Your task to perform on an android device: Go to Reddit.com Image 0: 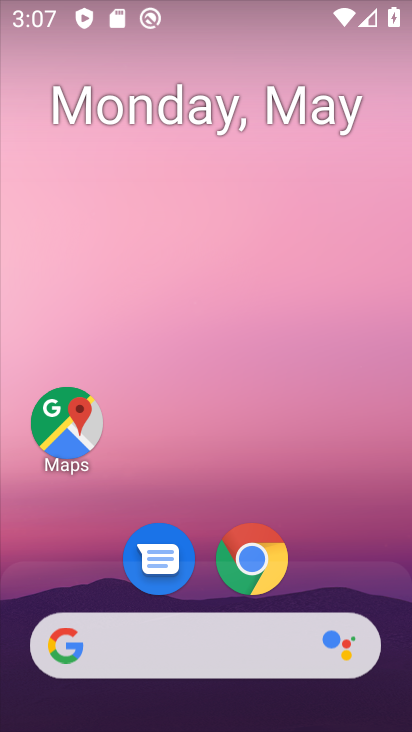
Step 0: drag from (292, 505) to (223, 9)
Your task to perform on an android device: Go to Reddit.com Image 1: 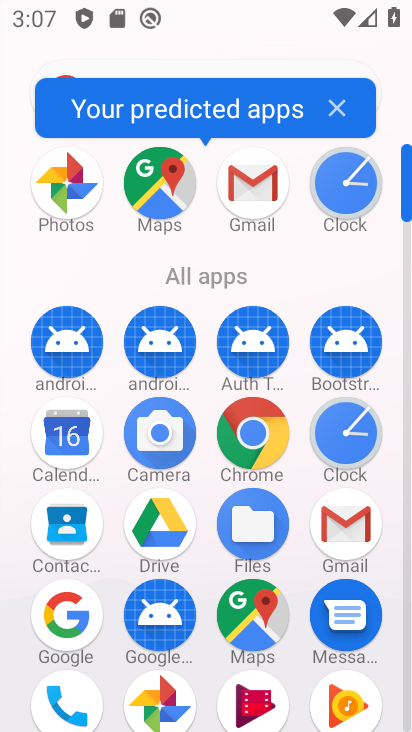
Step 1: click (255, 427)
Your task to perform on an android device: Go to Reddit.com Image 2: 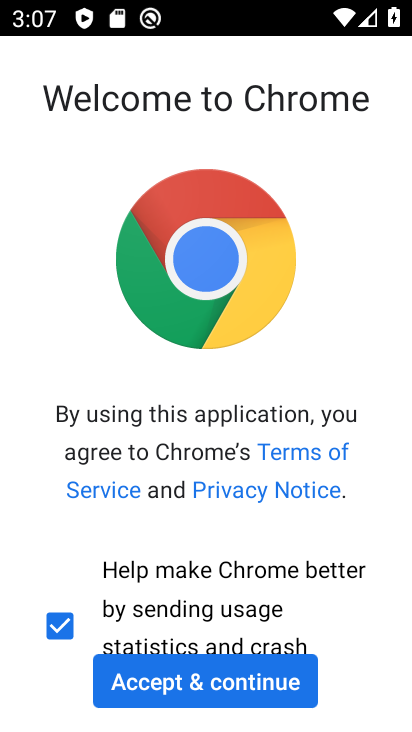
Step 2: click (204, 662)
Your task to perform on an android device: Go to Reddit.com Image 3: 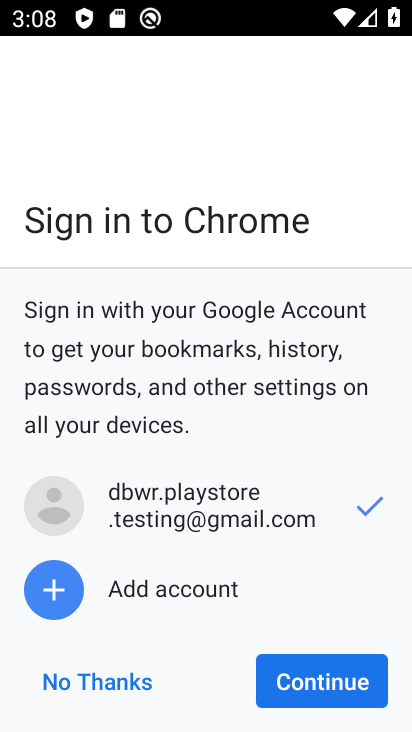
Step 3: click (303, 670)
Your task to perform on an android device: Go to Reddit.com Image 4: 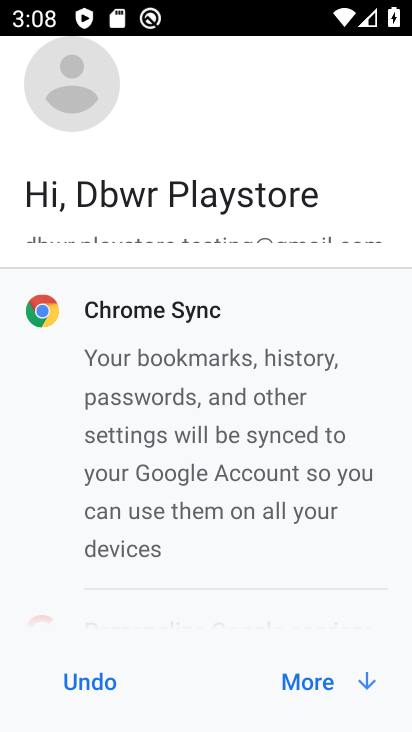
Step 4: click (291, 675)
Your task to perform on an android device: Go to Reddit.com Image 5: 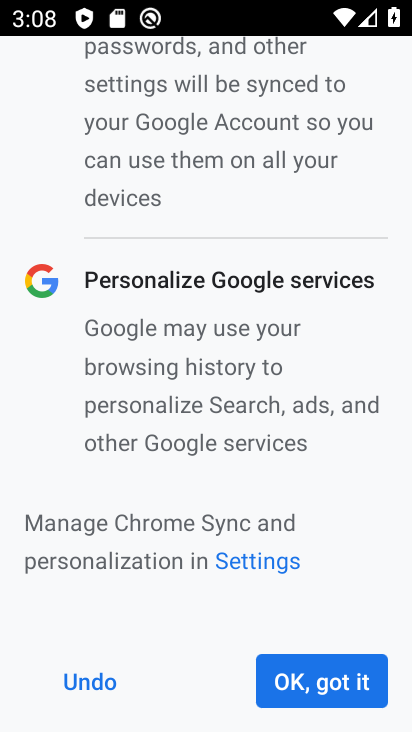
Step 5: click (291, 675)
Your task to perform on an android device: Go to Reddit.com Image 6: 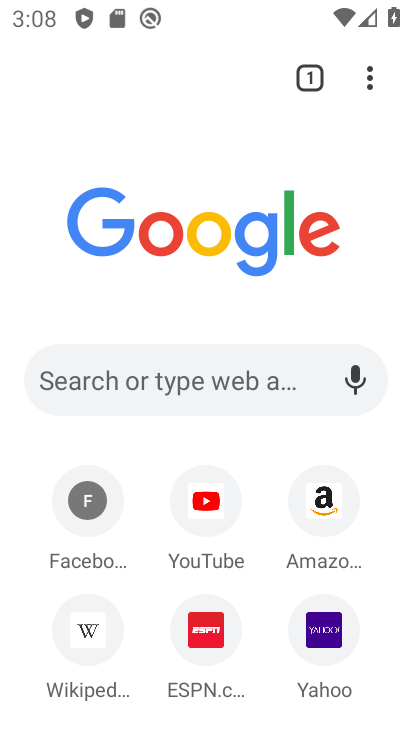
Step 6: click (161, 376)
Your task to perform on an android device: Go to Reddit.com Image 7: 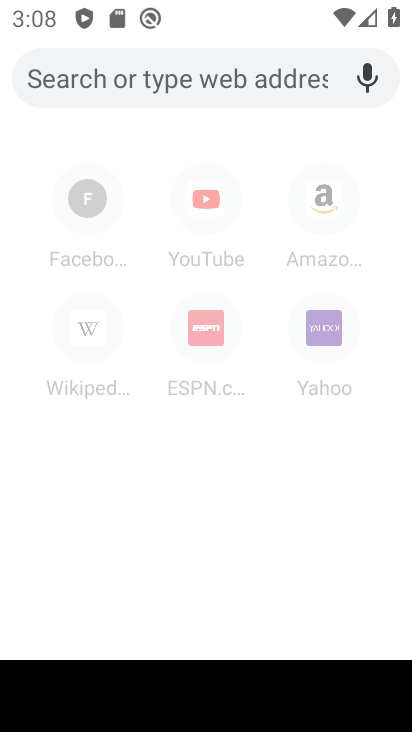
Step 7: type "Reddit.com"
Your task to perform on an android device: Go to Reddit.com Image 8: 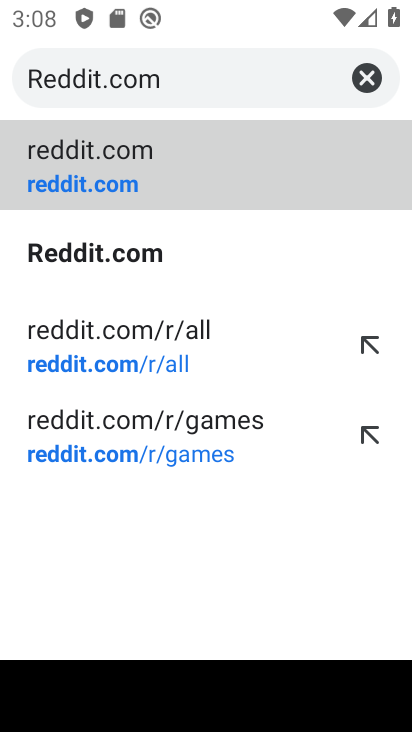
Step 8: click (81, 143)
Your task to perform on an android device: Go to Reddit.com Image 9: 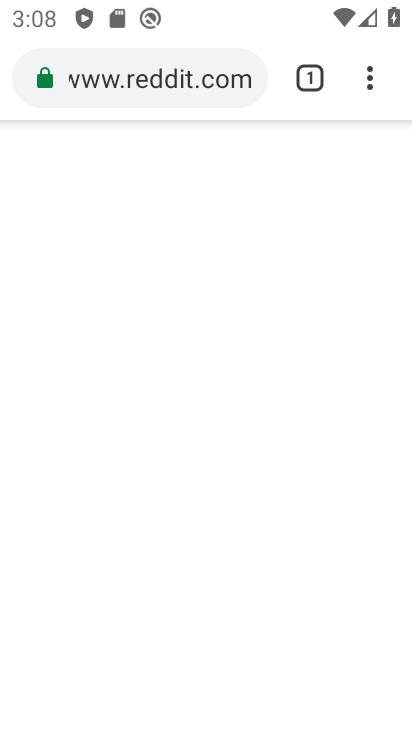
Step 9: click (95, 157)
Your task to perform on an android device: Go to Reddit.com Image 10: 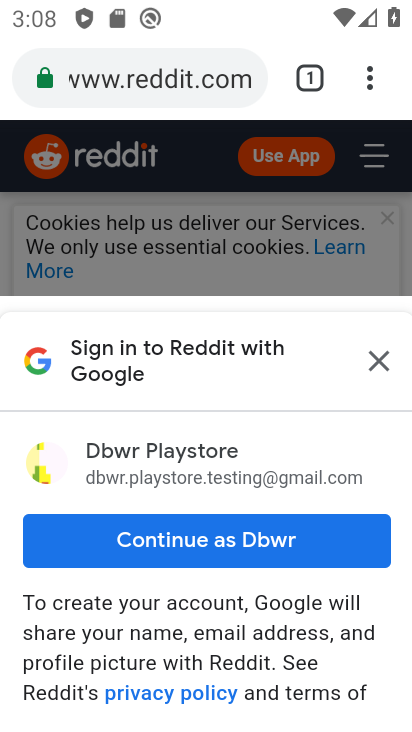
Step 10: click (270, 545)
Your task to perform on an android device: Go to Reddit.com Image 11: 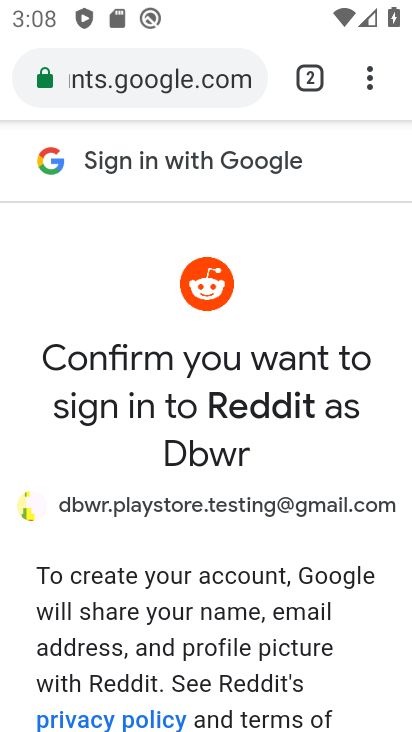
Step 11: drag from (212, 548) to (226, 217)
Your task to perform on an android device: Go to Reddit.com Image 12: 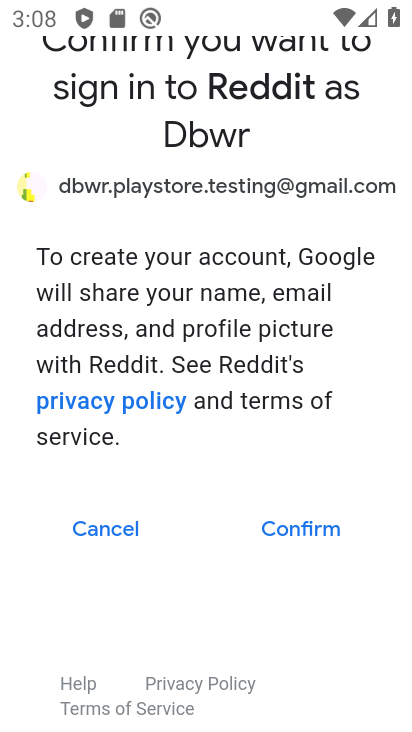
Step 12: click (299, 527)
Your task to perform on an android device: Go to Reddit.com Image 13: 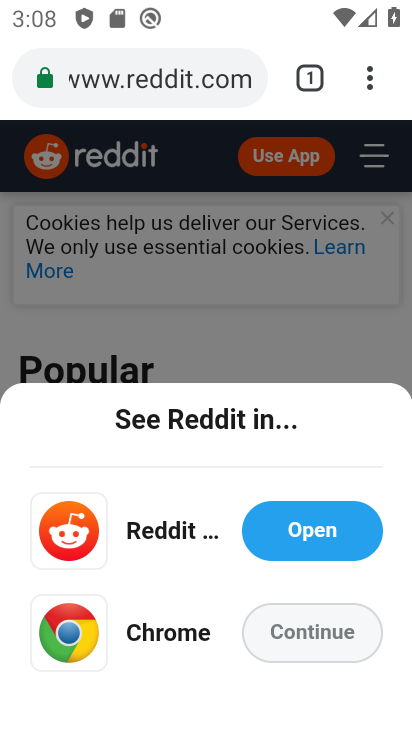
Step 13: task complete